Your task to perform on an android device: Open Chrome and go to the settings page Image 0: 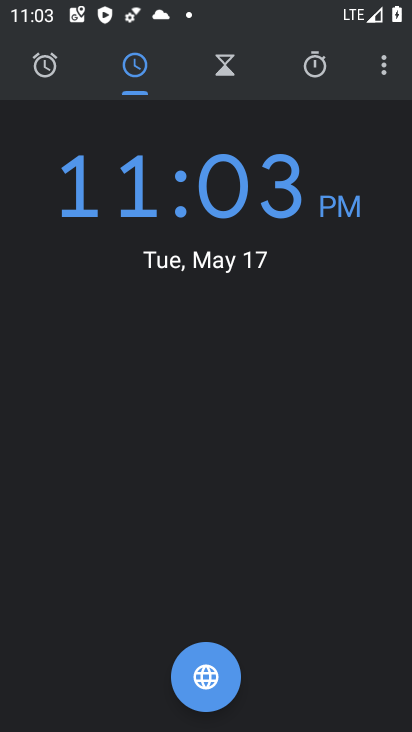
Step 0: press home button
Your task to perform on an android device: Open Chrome and go to the settings page Image 1: 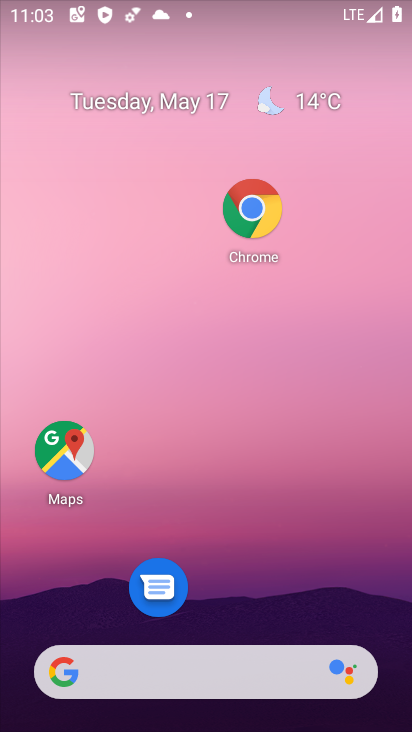
Step 1: click (250, 209)
Your task to perform on an android device: Open Chrome and go to the settings page Image 2: 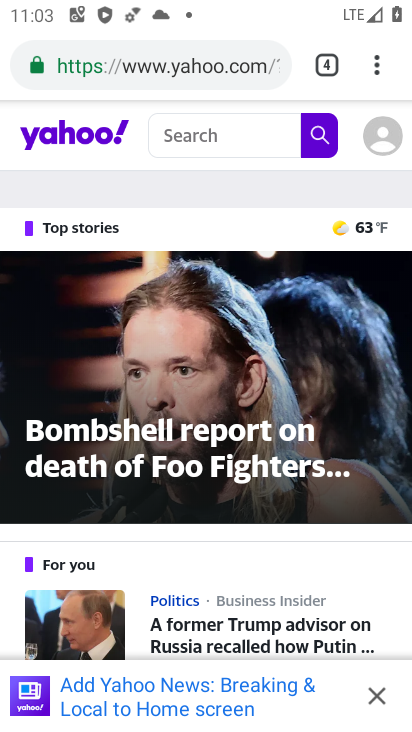
Step 2: click (388, 68)
Your task to perform on an android device: Open Chrome and go to the settings page Image 3: 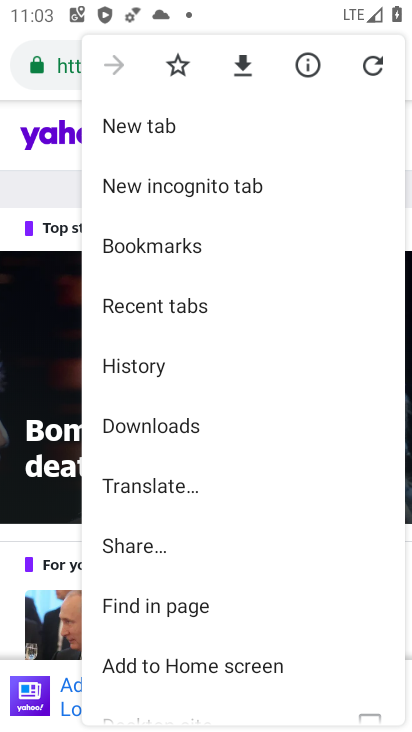
Step 3: drag from (167, 543) to (175, 185)
Your task to perform on an android device: Open Chrome and go to the settings page Image 4: 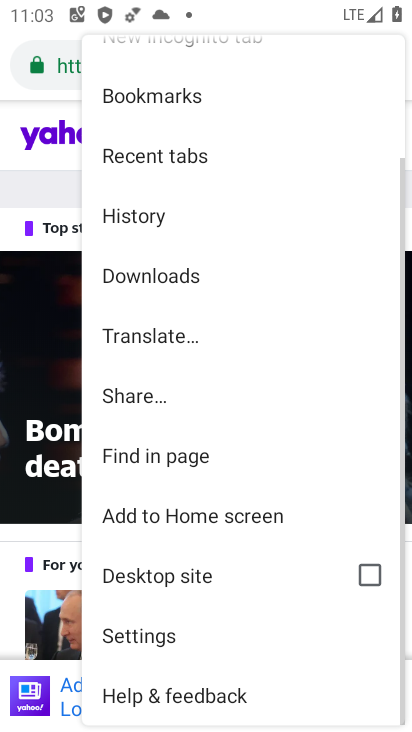
Step 4: click (160, 637)
Your task to perform on an android device: Open Chrome and go to the settings page Image 5: 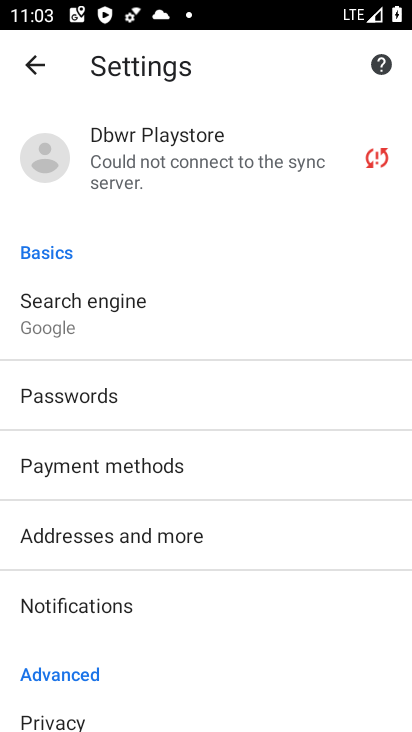
Step 5: task complete